Your task to perform on an android device: Open Maps and search for coffee Image 0: 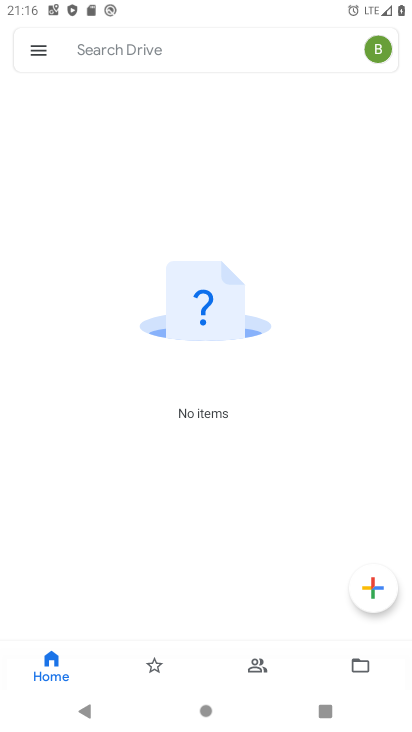
Step 0: press home button
Your task to perform on an android device: Open Maps and search for coffee Image 1: 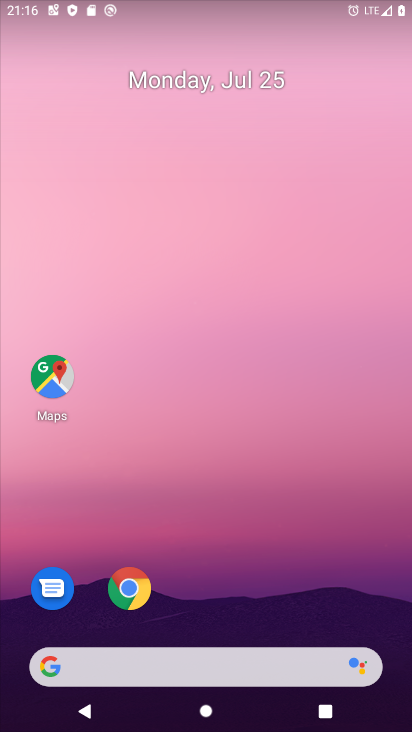
Step 1: click (49, 407)
Your task to perform on an android device: Open Maps and search for coffee Image 2: 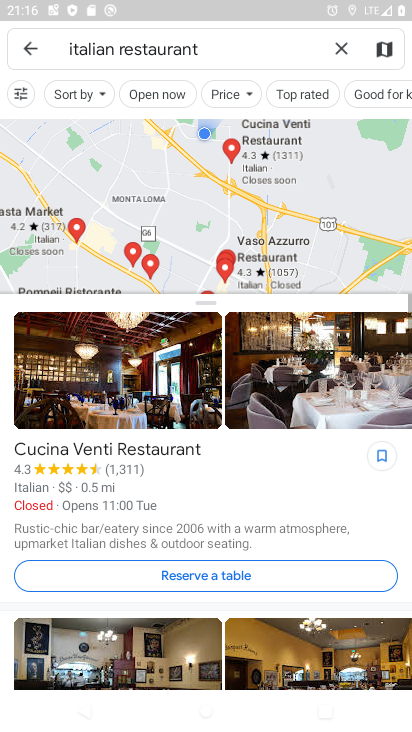
Step 2: click (344, 50)
Your task to perform on an android device: Open Maps and search for coffee Image 3: 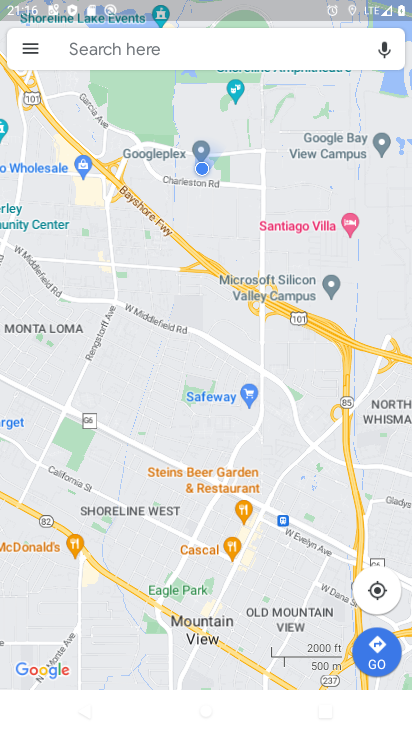
Step 3: click (204, 54)
Your task to perform on an android device: Open Maps and search for coffee Image 4: 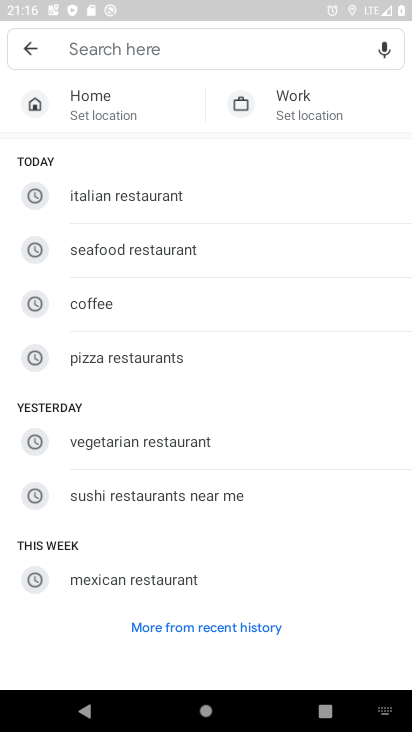
Step 4: click (99, 300)
Your task to perform on an android device: Open Maps and search for coffee Image 5: 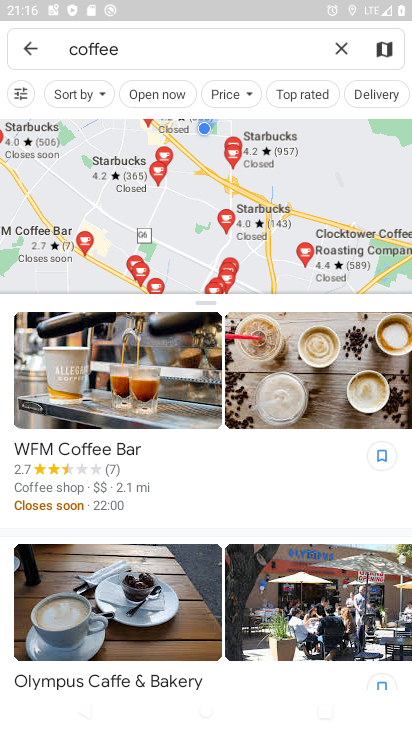
Step 5: task complete